Your task to perform on an android device: Do I have any events this weekend? Image 0: 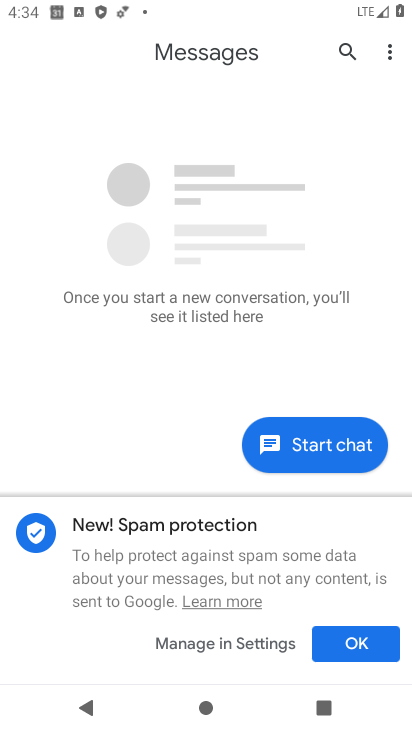
Step 0: press home button
Your task to perform on an android device: Do I have any events this weekend? Image 1: 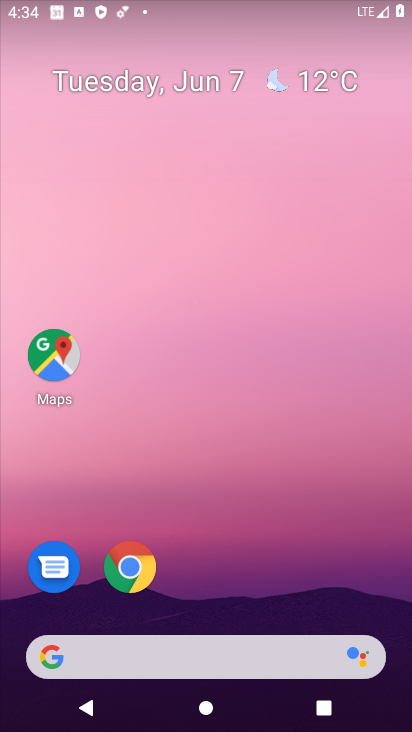
Step 1: drag from (292, 618) to (327, 0)
Your task to perform on an android device: Do I have any events this weekend? Image 2: 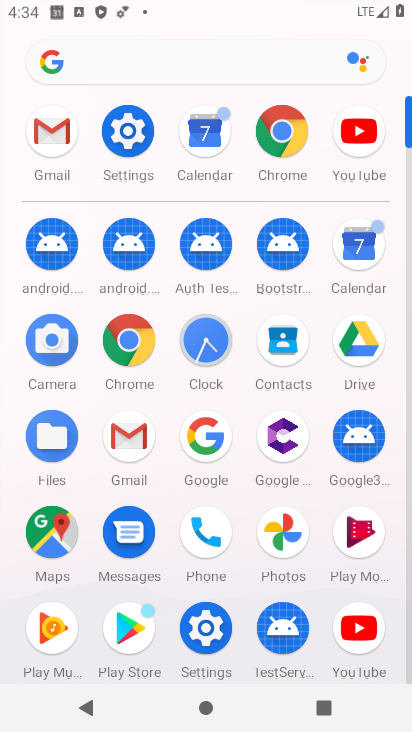
Step 2: click (377, 244)
Your task to perform on an android device: Do I have any events this weekend? Image 3: 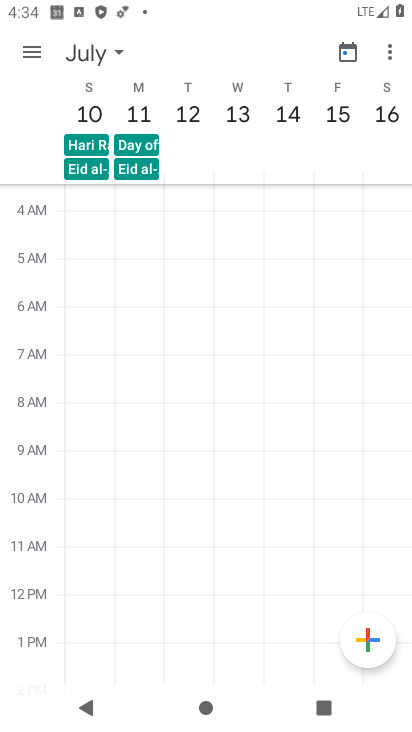
Step 3: click (126, 49)
Your task to perform on an android device: Do I have any events this weekend? Image 4: 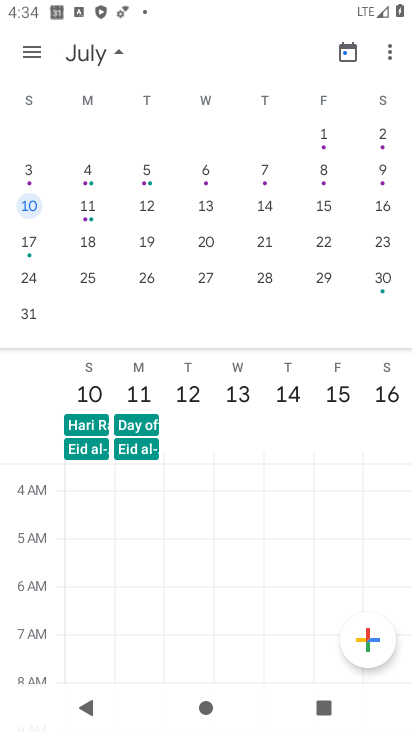
Step 4: drag from (22, 227) to (338, 238)
Your task to perform on an android device: Do I have any events this weekend? Image 5: 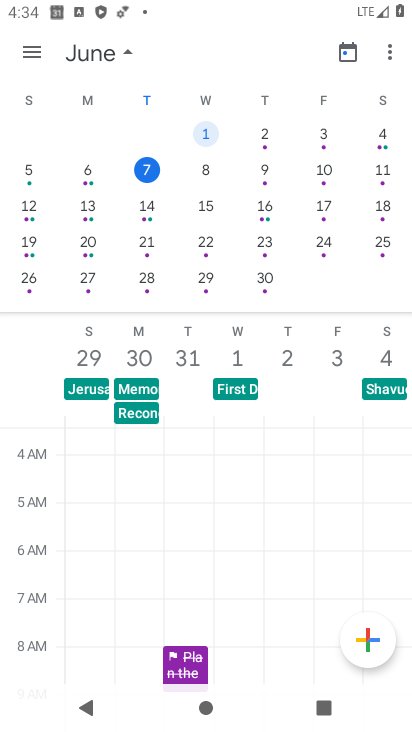
Step 5: click (380, 172)
Your task to perform on an android device: Do I have any events this weekend? Image 6: 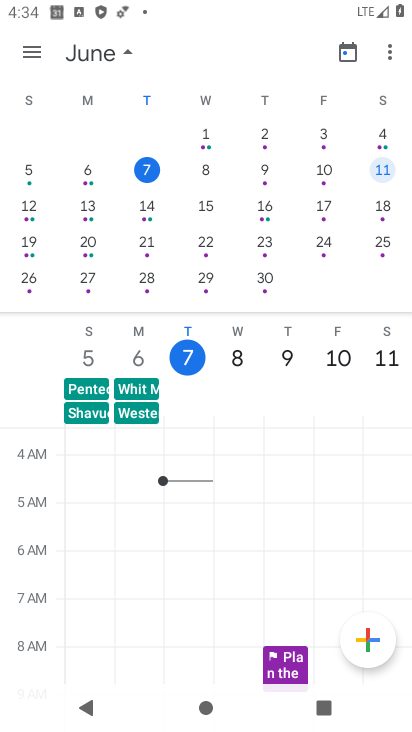
Step 6: task complete